Your task to perform on an android device: turn on bluetooth scan Image 0: 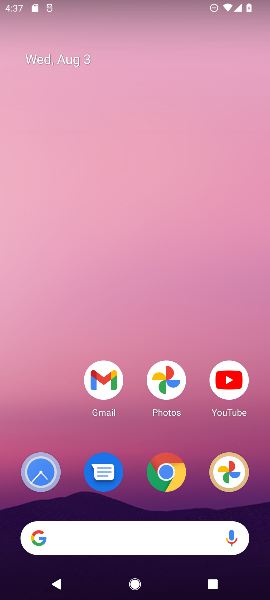
Step 0: drag from (209, 495) to (131, 47)
Your task to perform on an android device: turn on bluetooth scan Image 1: 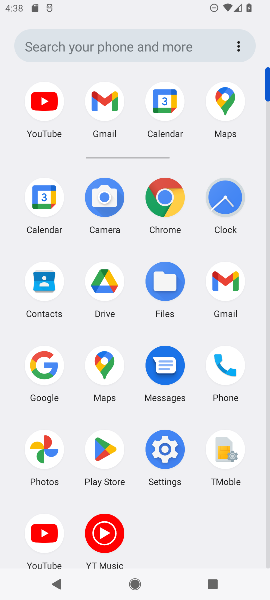
Step 1: click (158, 455)
Your task to perform on an android device: turn on bluetooth scan Image 2: 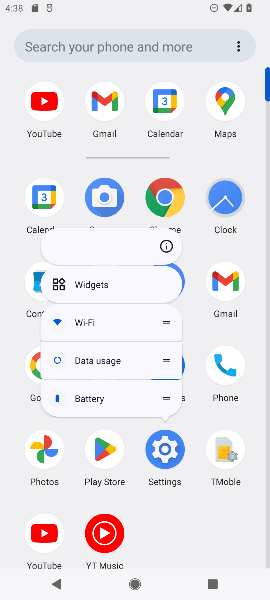
Step 2: click (149, 454)
Your task to perform on an android device: turn on bluetooth scan Image 3: 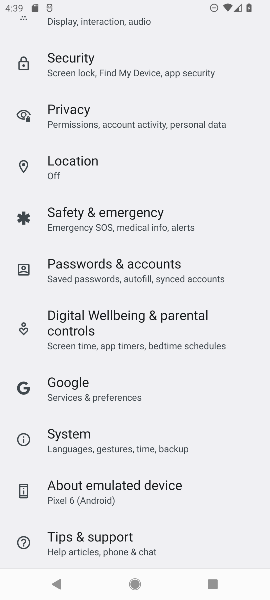
Step 3: task complete